Your task to perform on an android device: toggle priority inbox in the gmail app Image 0: 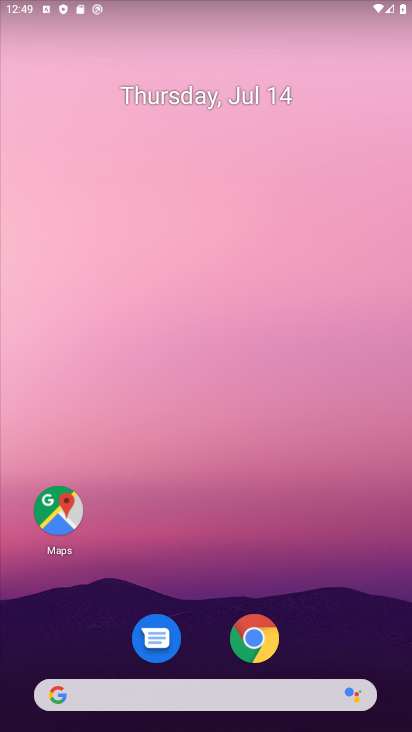
Step 0: press home button
Your task to perform on an android device: toggle priority inbox in the gmail app Image 1: 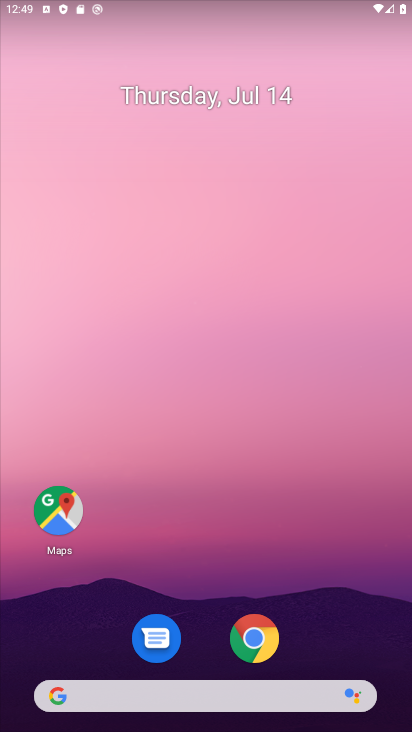
Step 1: drag from (237, 702) to (227, 204)
Your task to perform on an android device: toggle priority inbox in the gmail app Image 2: 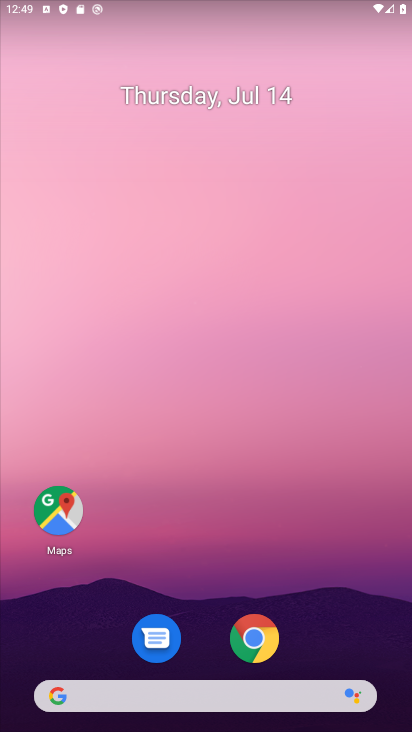
Step 2: drag from (146, 715) to (298, 50)
Your task to perform on an android device: toggle priority inbox in the gmail app Image 3: 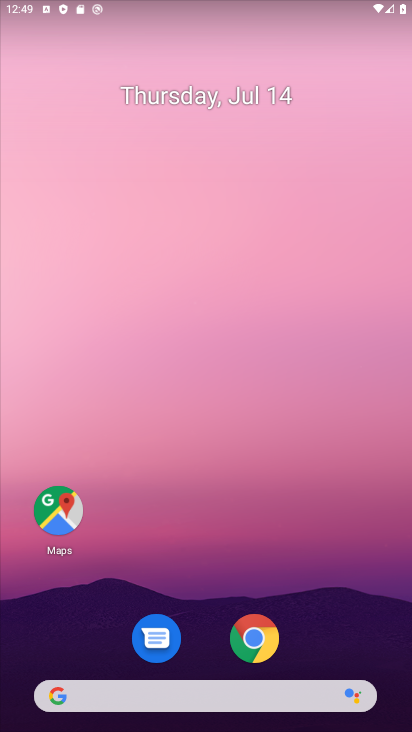
Step 3: drag from (207, 663) to (250, 140)
Your task to perform on an android device: toggle priority inbox in the gmail app Image 4: 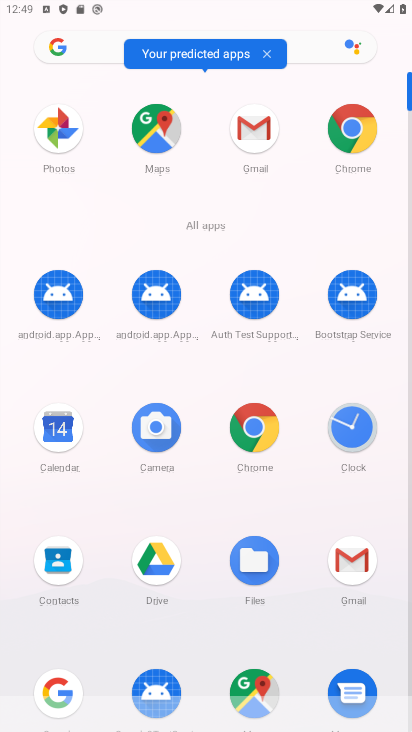
Step 4: drag from (247, 146) to (298, 654)
Your task to perform on an android device: toggle priority inbox in the gmail app Image 5: 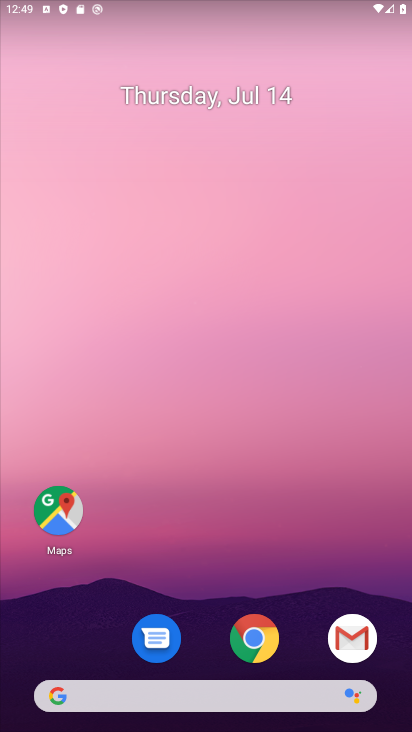
Step 5: click (352, 643)
Your task to perform on an android device: toggle priority inbox in the gmail app Image 6: 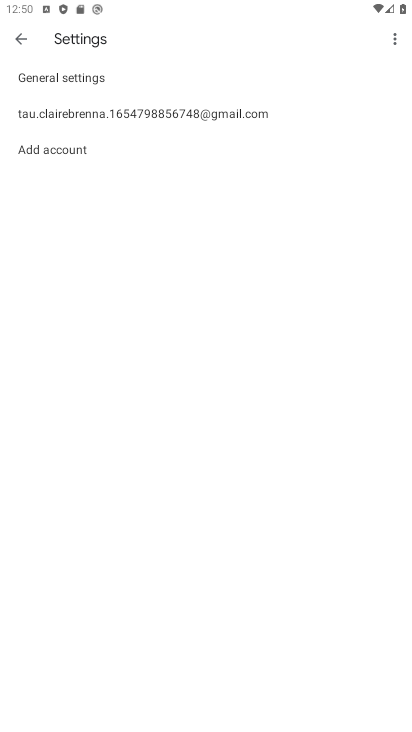
Step 6: click (59, 122)
Your task to perform on an android device: toggle priority inbox in the gmail app Image 7: 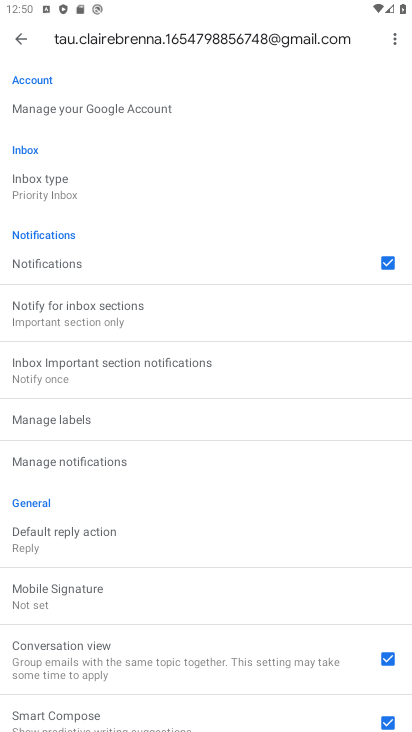
Step 7: click (55, 172)
Your task to perform on an android device: toggle priority inbox in the gmail app Image 8: 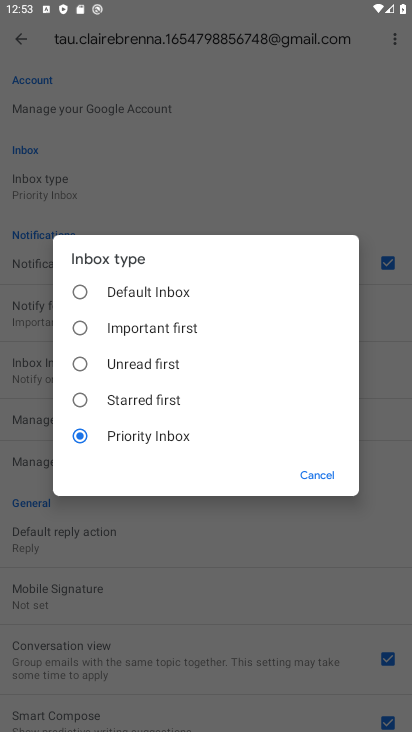
Step 8: task complete